Your task to perform on an android device: What's the weather today? Image 0: 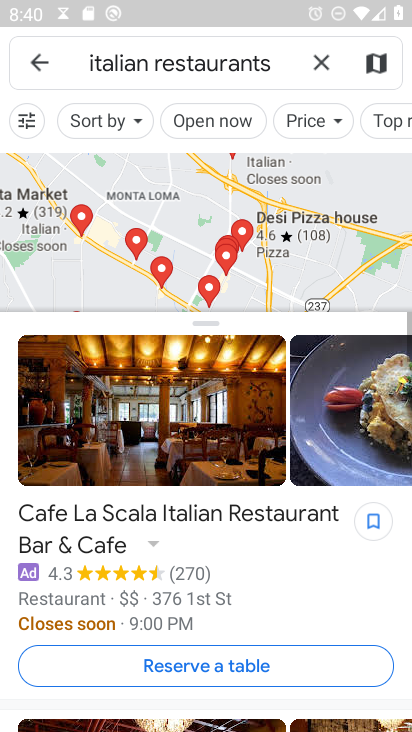
Step 0: press home button
Your task to perform on an android device: What's the weather today? Image 1: 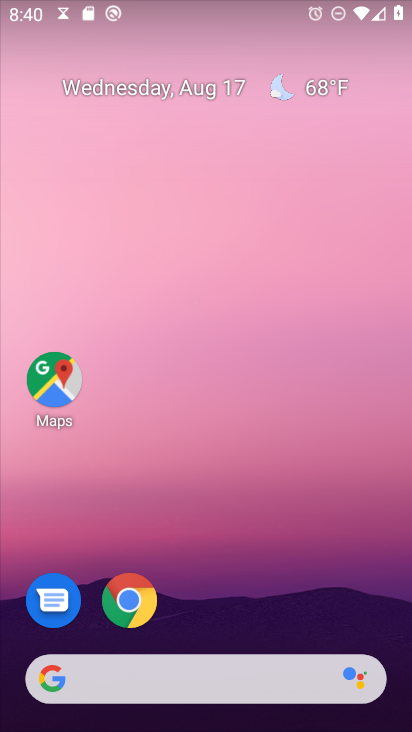
Step 1: click (40, 683)
Your task to perform on an android device: What's the weather today? Image 2: 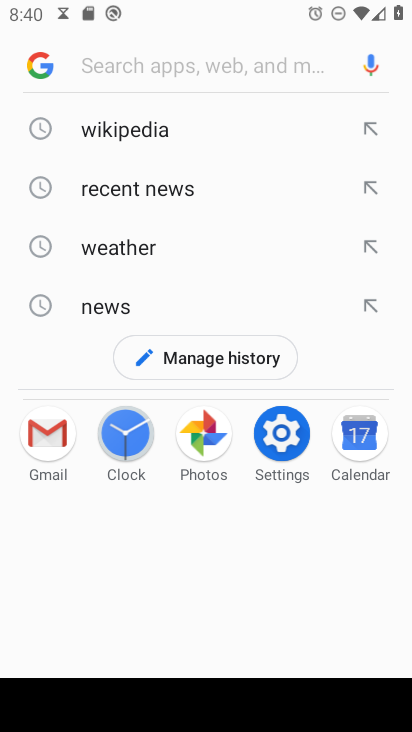
Step 2: type "What's the weather today?"
Your task to perform on an android device: What's the weather today? Image 3: 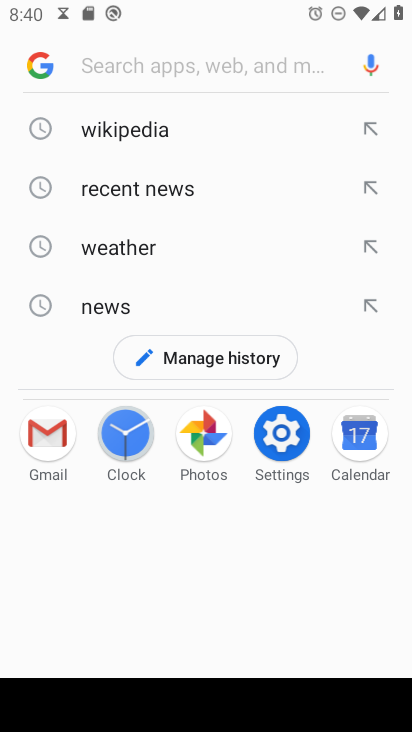
Step 3: click (135, 69)
Your task to perform on an android device: What's the weather today? Image 4: 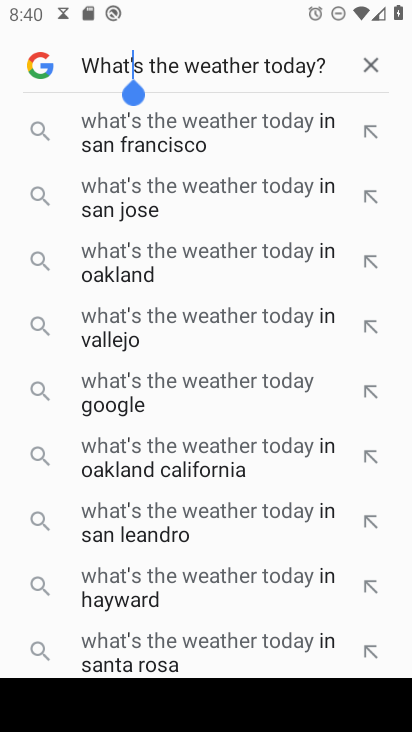
Step 4: press enter
Your task to perform on an android device: What's the weather today? Image 5: 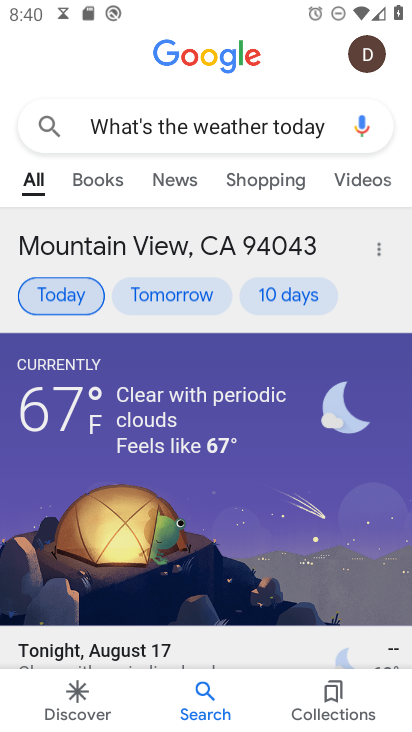
Step 5: task complete